Your task to perform on an android device: turn on notifications settings in the gmail app Image 0: 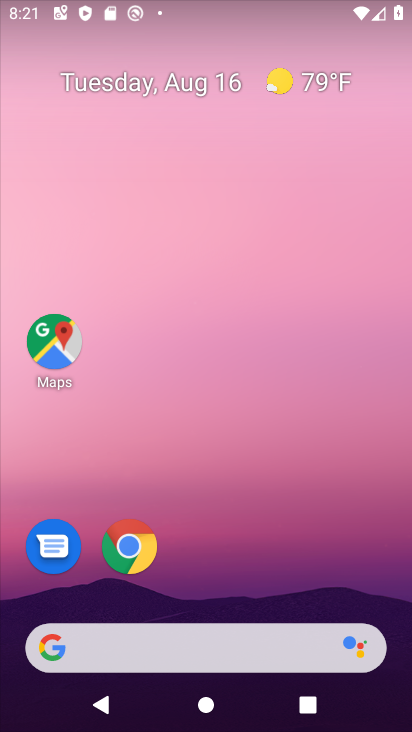
Step 0: drag from (210, 454) to (171, 17)
Your task to perform on an android device: turn on notifications settings in the gmail app Image 1: 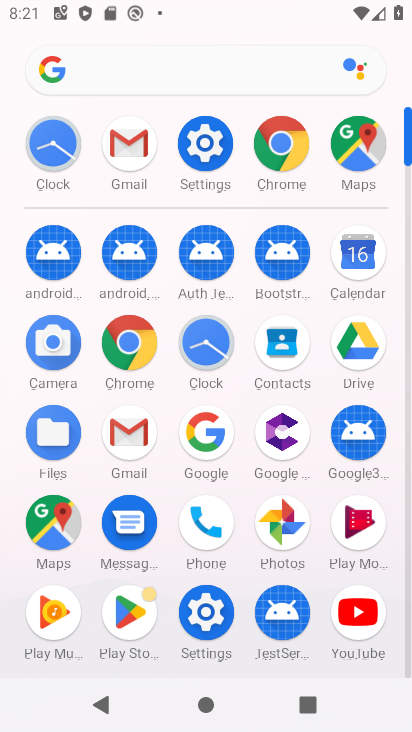
Step 1: click (125, 151)
Your task to perform on an android device: turn on notifications settings in the gmail app Image 2: 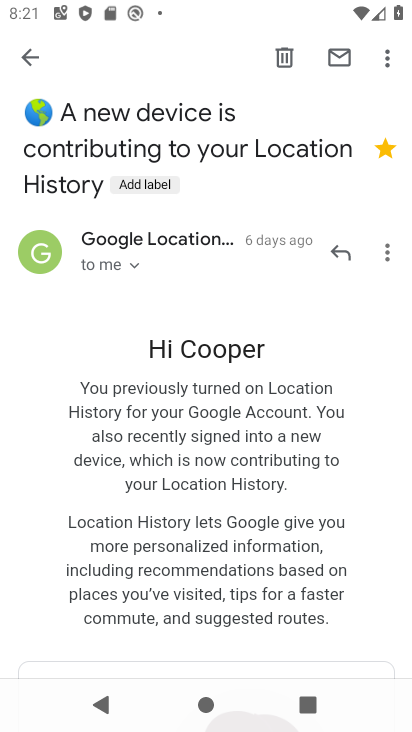
Step 2: click (33, 62)
Your task to perform on an android device: turn on notifications settings in the gmail app Image 3: 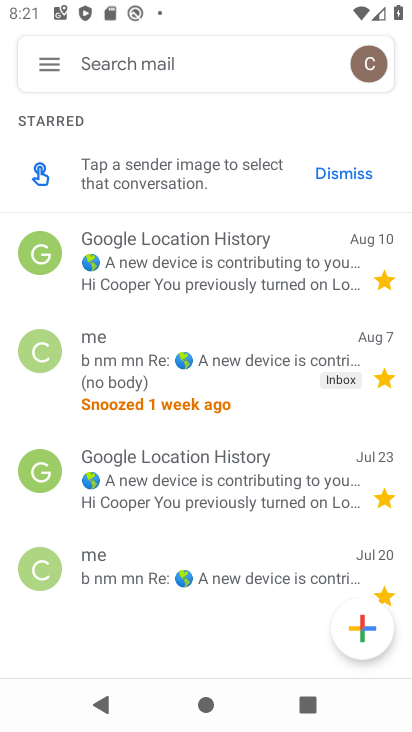
Step 3: click (181, 62)
Your task to perform on an android device: turn on notifications settings in the gmail app Image 4: 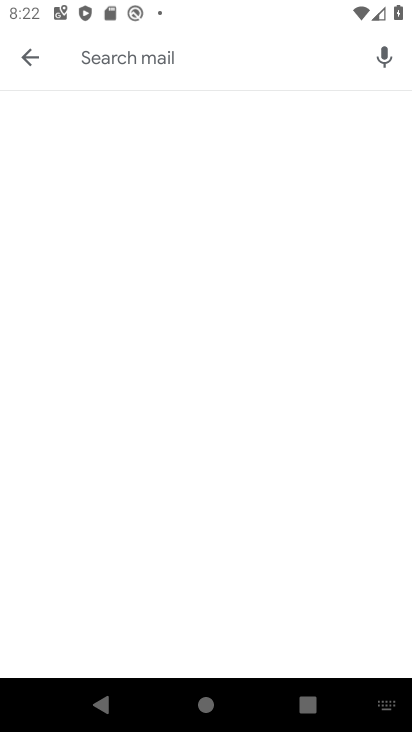
Step 4: click (28, 59)
Your task to perform on an android device: turn on notifications settings in the gmail app Image 5: 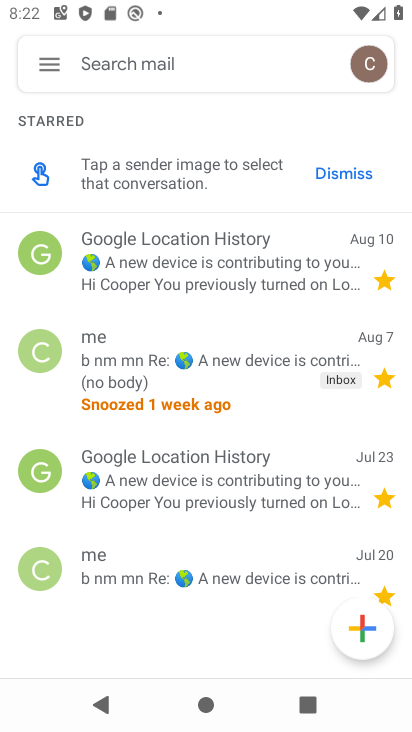
Step 5: click (54, 68)
Your task to perform on an android device: turn on notifications settings in the gmail app Image 6: 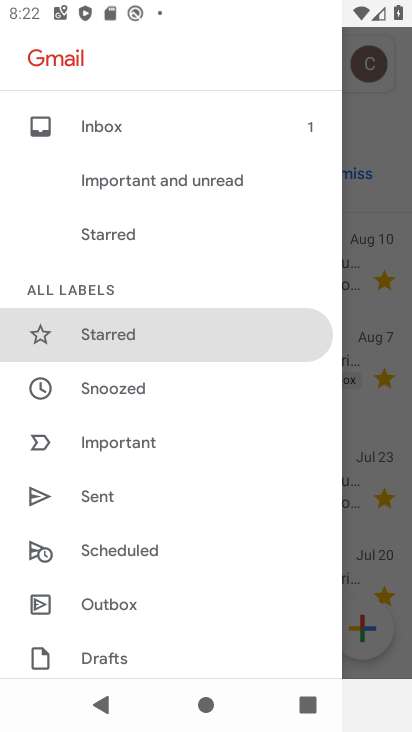
Step 6: drag from (100, 512) to (106, 300)
Your task to perform on an android device: turn on notifications settings in the gmail app Image 7: 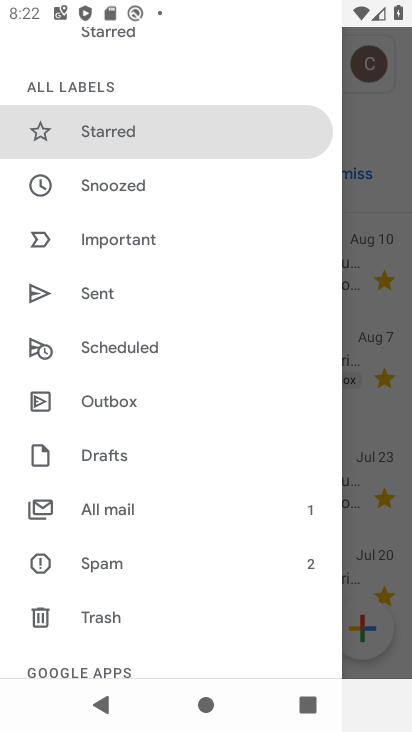
Step 7: drag from (139, 576) to (137, 165)
Your task to perform on an android device: turn on notifications settings in the gmail app Image 8: 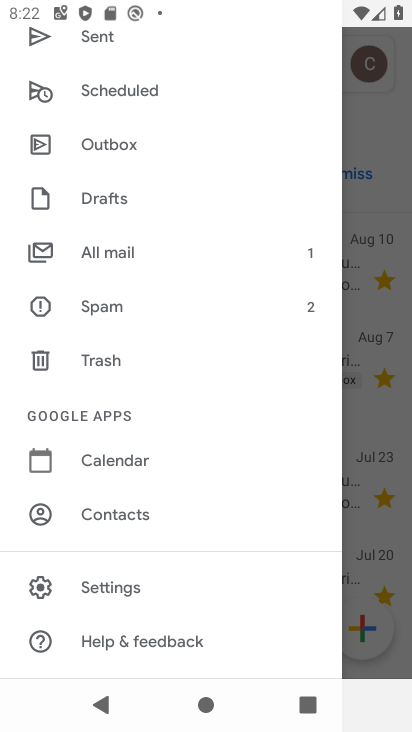
Step 8: click (115, 586)
Your task to perform on an android device: turn on notifications settings in the gmail app Image 9: 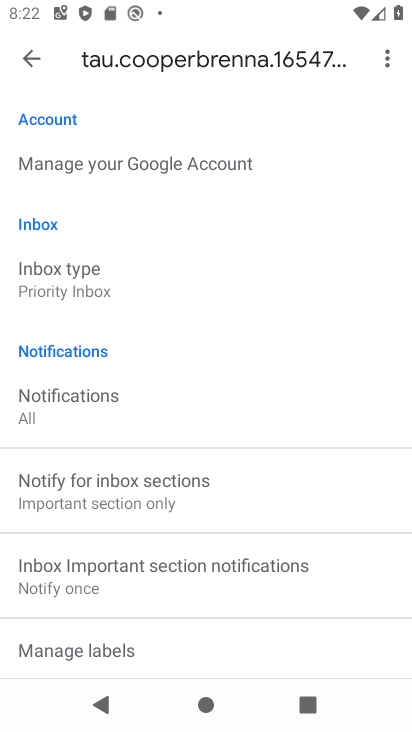
Step 9: drag from (136, 542) to (132, 454)
Your task to perform on an android device: turn on notifications settings in the gmail app Image 10: 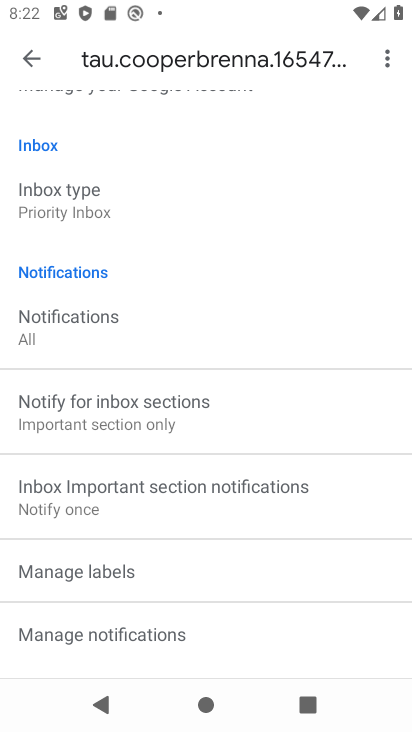
Step 10: click (95, 633)
Your task to perform on an android device: turn on notifications settings in the gmail app Image 11: 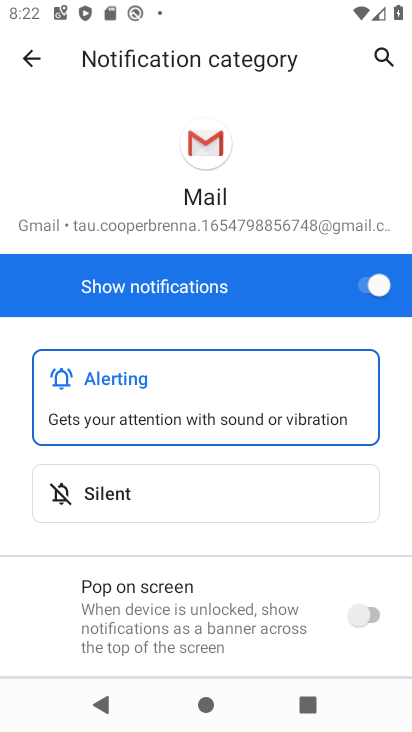
Step 11: click (357, 298)
Your task to perform on an android device: turn on notifications settings in the gmail app Image 12: 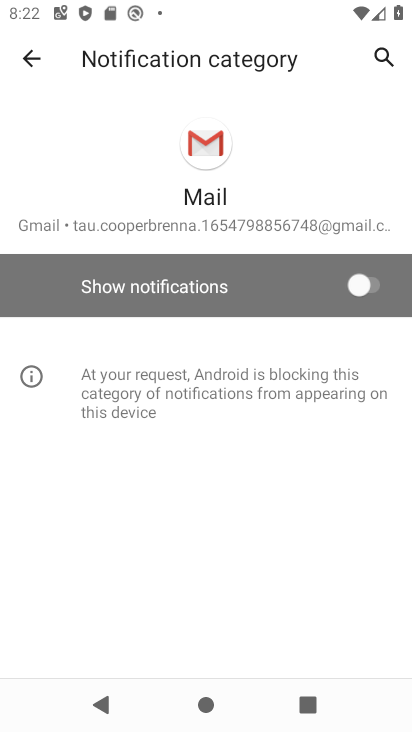
Step 12: click (380, 286)
Your task to perform on an android device: turn on notifications settings in the gmail app Image 13: 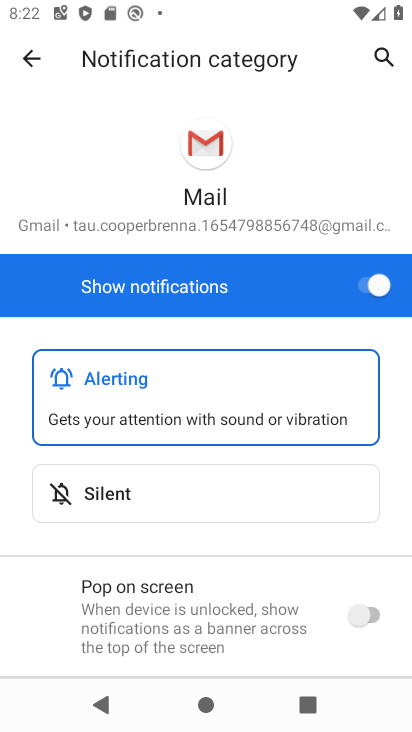
Step 13: task complete